Your task to perform on an android device: Open settings Image 0: 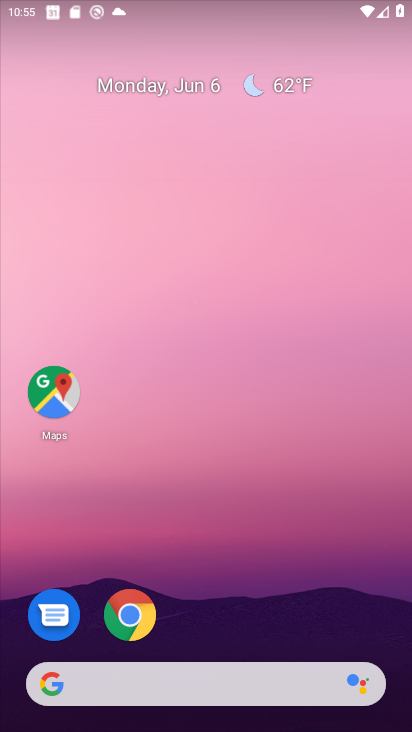
Step 0: drag from (242, 701) to (41, 32)
Your task to perform on an android device: Open settings Image 1: 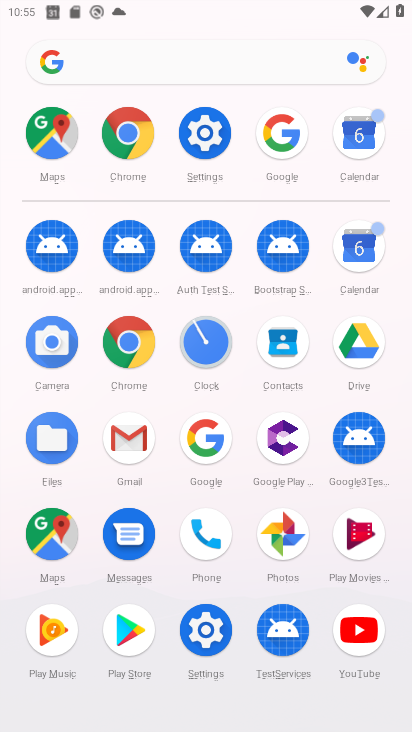
Step 1: click (208, 143)
Your task to perform on an android device: Open settings Image 2: 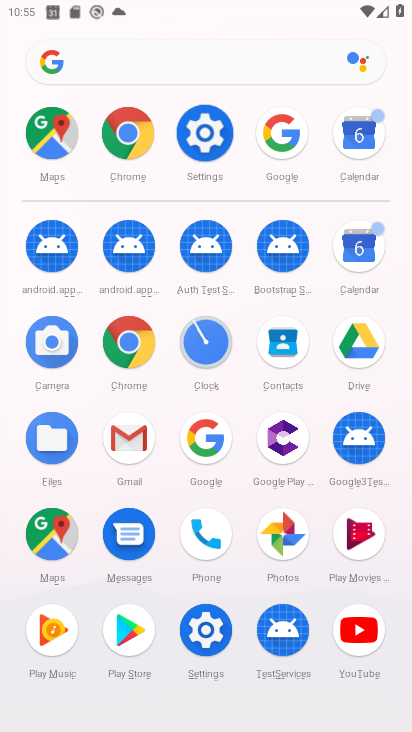
Step 2: click (207, 140)
Your task to perform on an android device: Open settings Image 3: 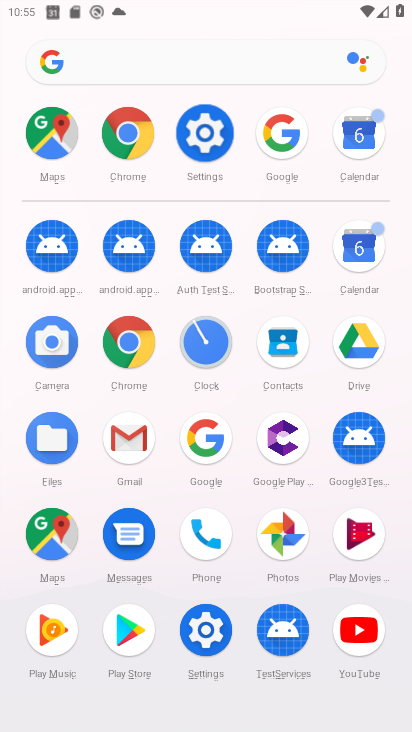
Step 3: click (210, 140)
Your task to perform on an android device: Open settings Image 4: 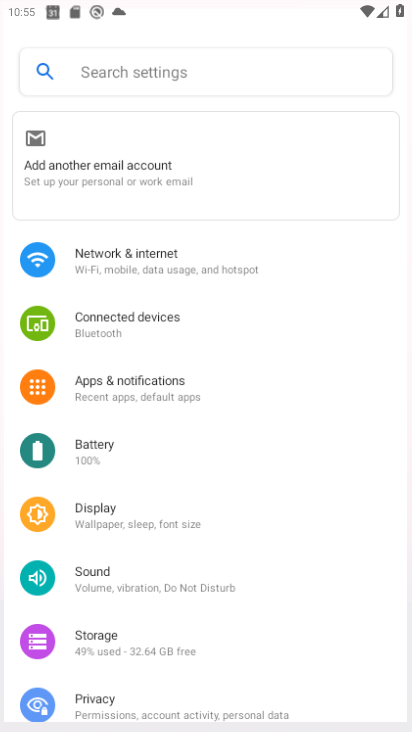
Step 4: click (215, 138)
Your task to perform on an android device: Open settings Image 5: 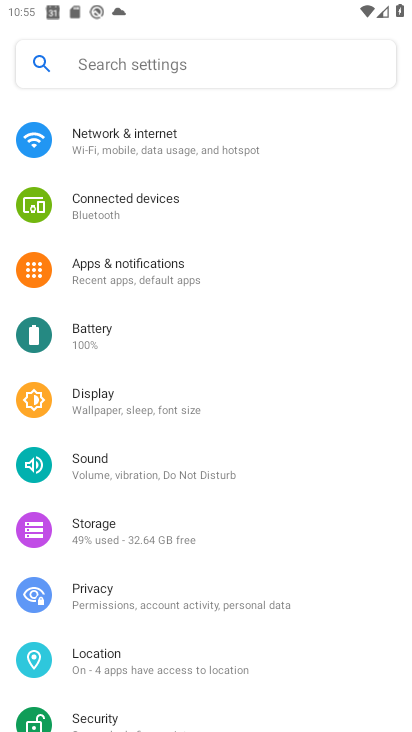
Step 5: click (215, 138)
Your task to perform on an android device: Open settings Image 6: 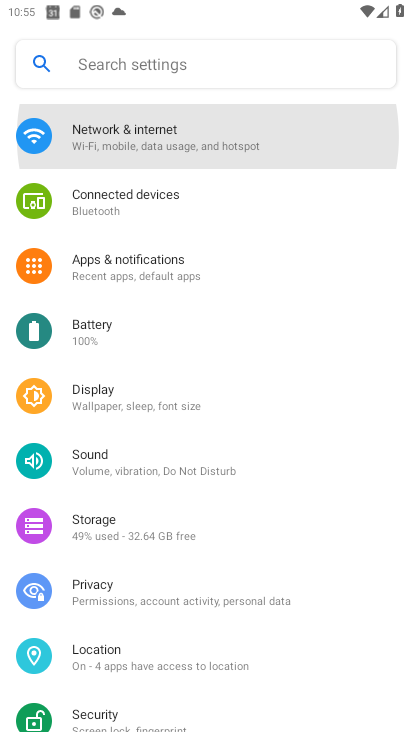
Step 6: click (216, 136)
Your task to perform on an android device: Open settings Image 7: 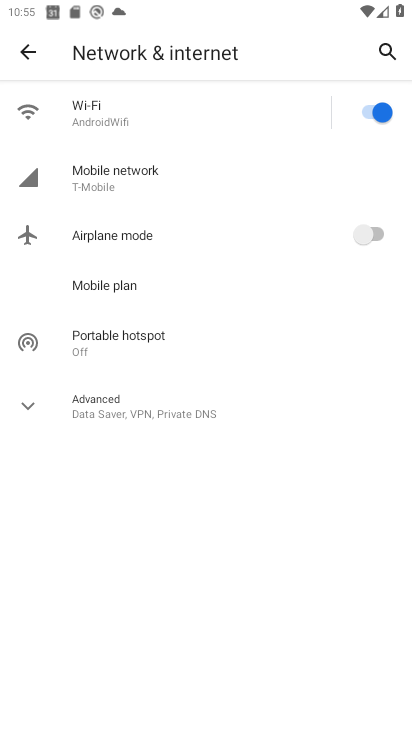
Step 7: click (25, 45)
Your task to perform on an android device: Open settings Image 8: 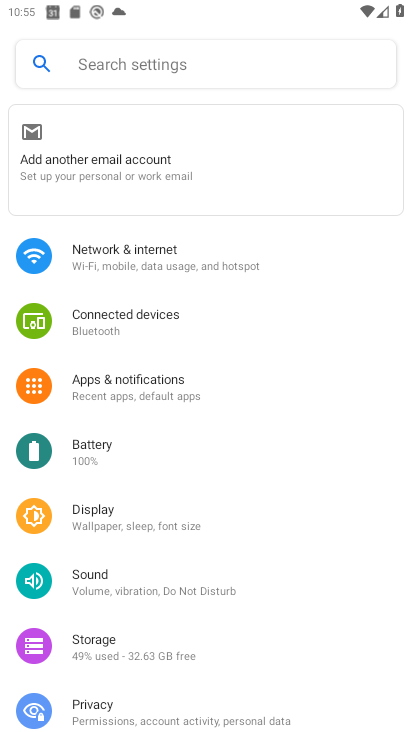
Step 8: task complete